Your task to perform on an android device: turn pop-ups on in chrome Image 0: 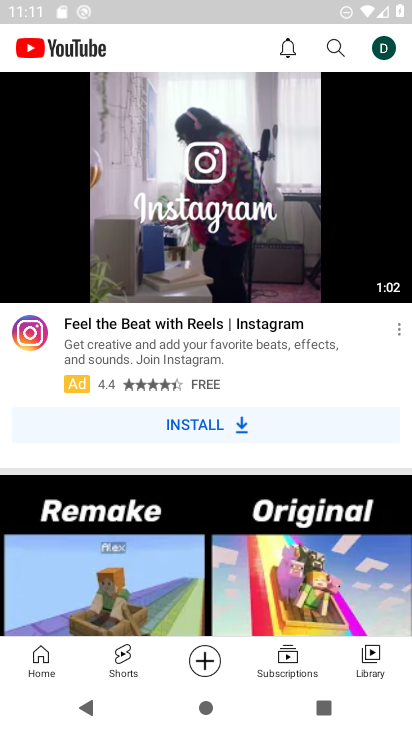
Step 0: press home button
Your task to perform on an android device: turn pop-ups on in chrome Image 1: 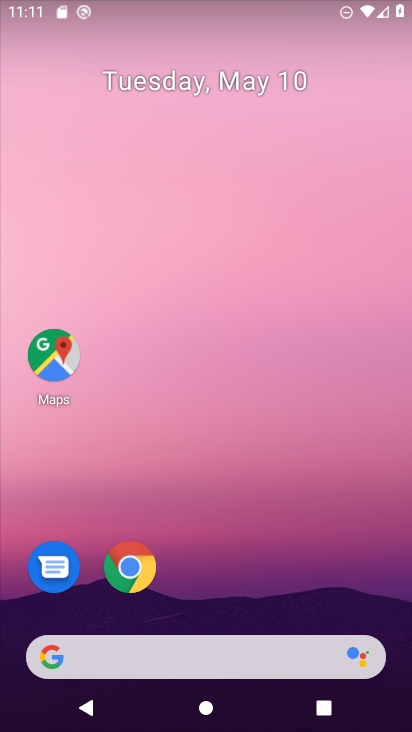
Step 1: click (128, 589)
Your task to perform on an android device: turn pop-ups on in chrome Image 2: 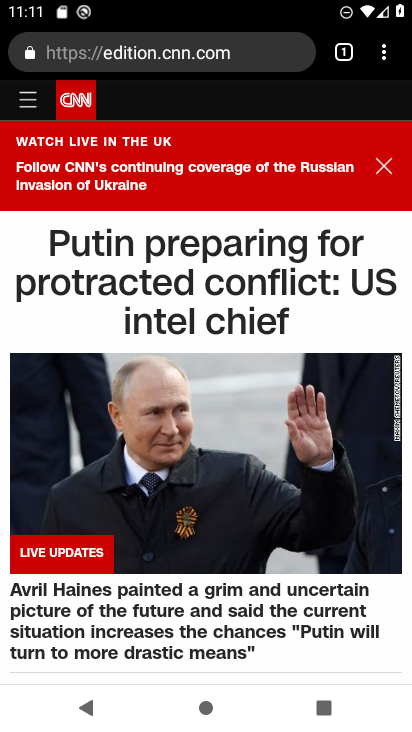
Step 2: drag from (383, 52) to (242, 582)
Your task to perform on an android device: turn pop-ups on in chrome Image 3: 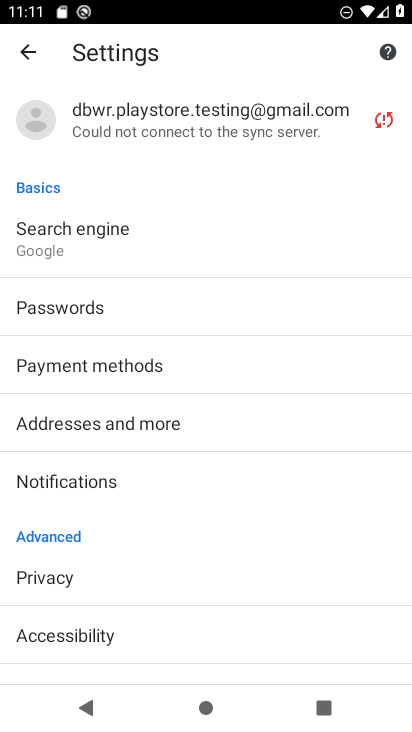
Step 3: drag from (223, 609) to (270, 285)
Your task to perform on an android device: turn pop-ups on in chrome Image 4: 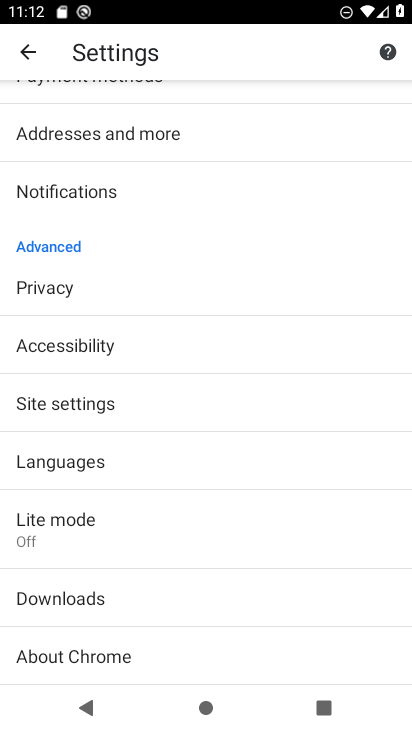
Step 4: click (38, 417)
Your task to perform on an android device: turn pop-ups on in chrome Image 5: 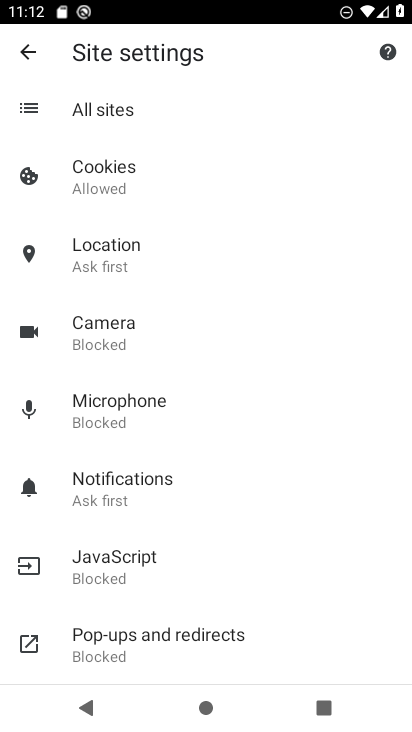
Step 5: drag from (166, 601) to (159, 400)
Your task to perform on an android device: turn pop-ups on in chrome Image 6: 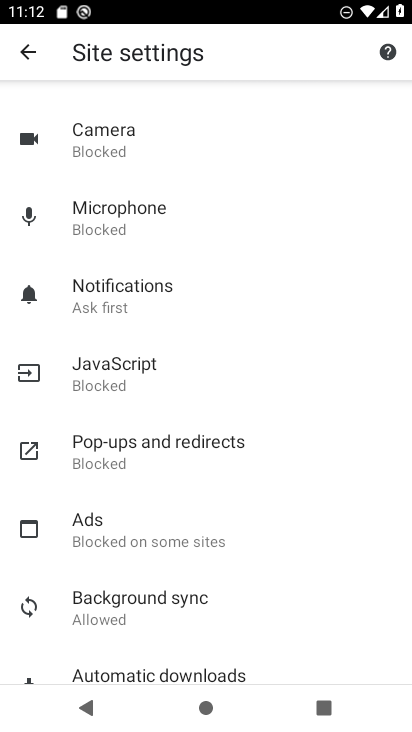
Step 6: click (163, 456)
Your task to perform on an android device: turn pop-ups on in chrome Image 7: 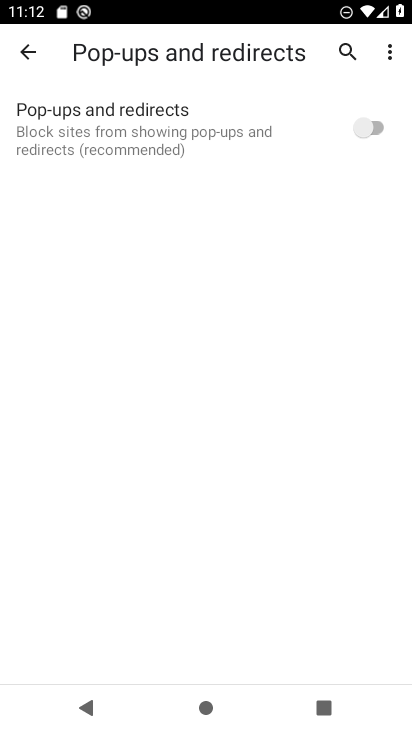
Step 7: click (363, 120)
Your task to perform on an android device: turn pop-ups on in chrome Image 8: 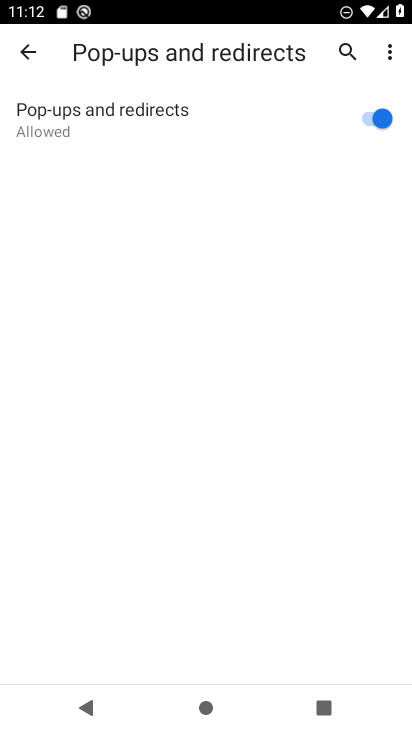
Step 8: task complete